Your task to perform on an android device: toggle data saver in the chrome app Image 0: 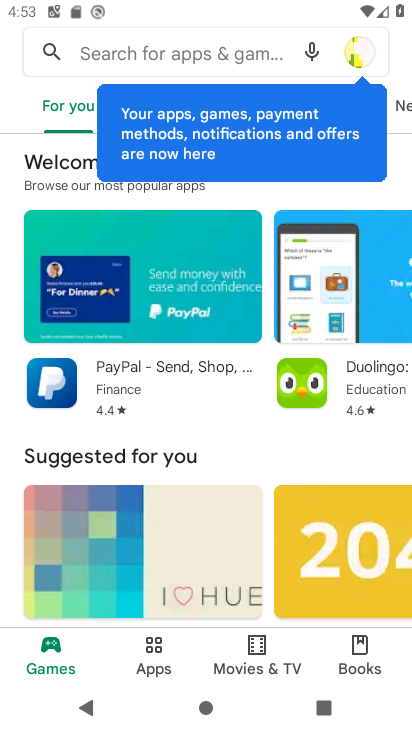
Step 0: press home button
Your task to perform on an android device: toggle data saver in the chrome app Image 1: 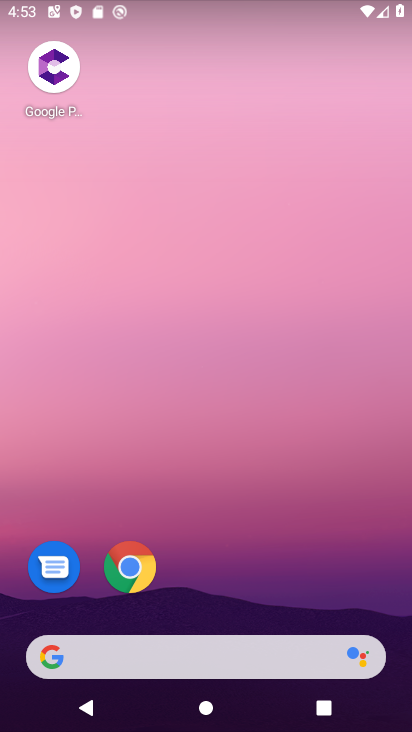
Step 1: click (122, 564)
Your task to perform on an android device: toggle data saver in the chrome app Image 2: 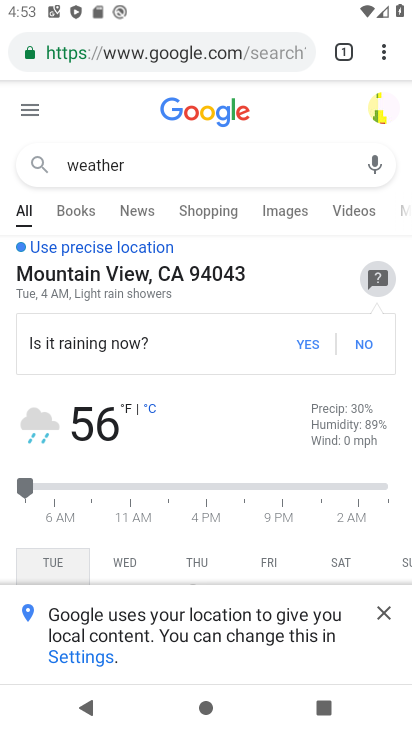
Step 2: click (384, 54)
Your task to perform on an android device: toggle data saver in the chrome app Image 3: 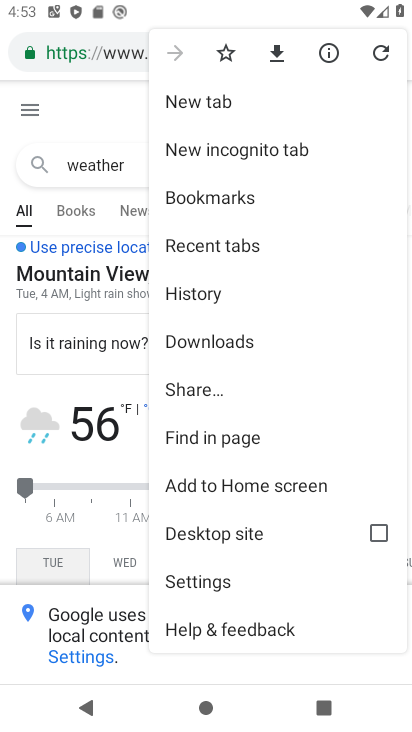
Step 3: click (240, 580)
Your task to perform on an android device: toggle data saver in the chrome app Image 4: 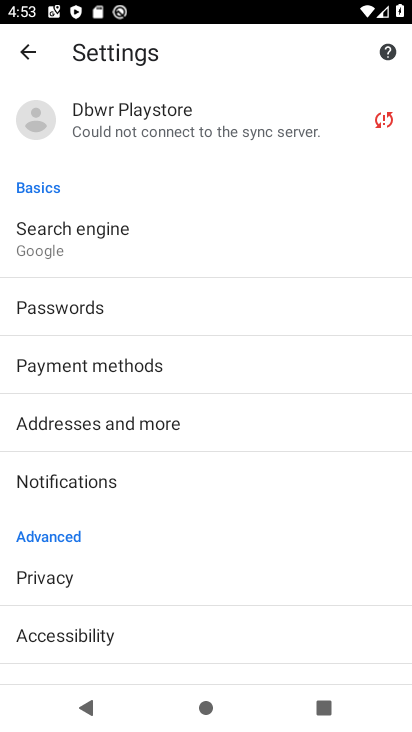
Step 4: drag from (342, 640) to (270, 267)
Your task to perform on an android device: toggle data saver in the chrome app Image 5: 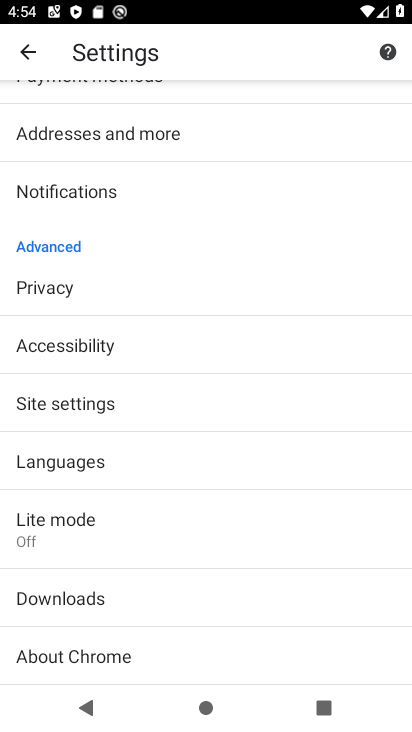
Step 5: click (81, 534)
Your task to perform on an android device: toggle data saver in the chrome app Image 6: 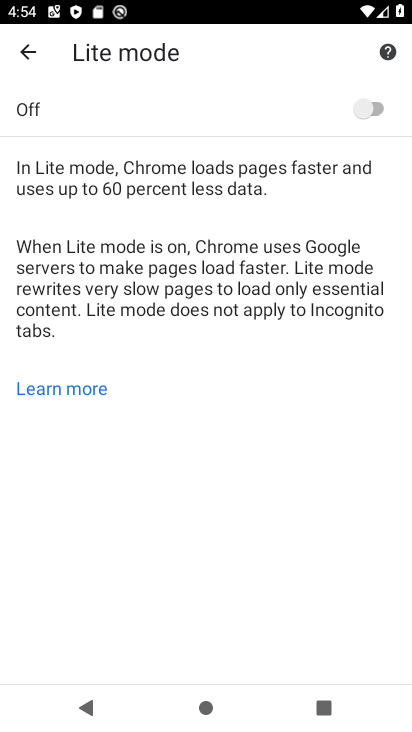
Step 6: click (355, 108)
Your task to perform on an android device: toggle data saver in the chrome app Image 7: 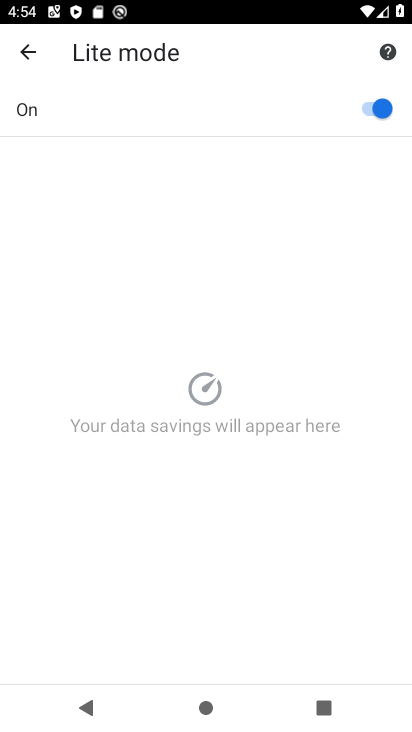
Step 7: task complete